Your task to perform on an android device: What is the recent news? Image 0: 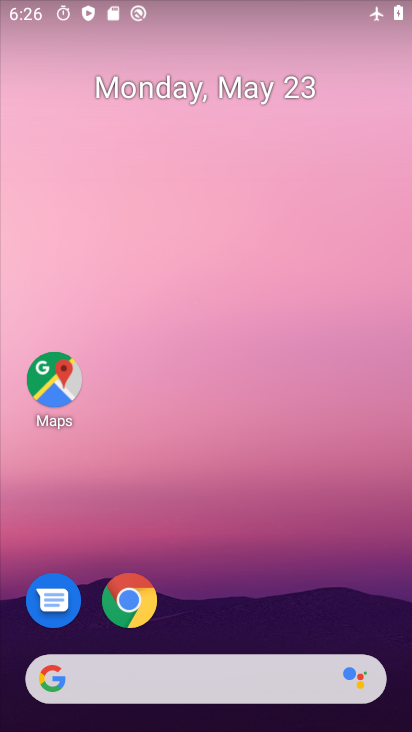
Step 0: drag from (200, 581) to (225, 31)
Your task to perform on an android device: What is the recent news? Image 1: 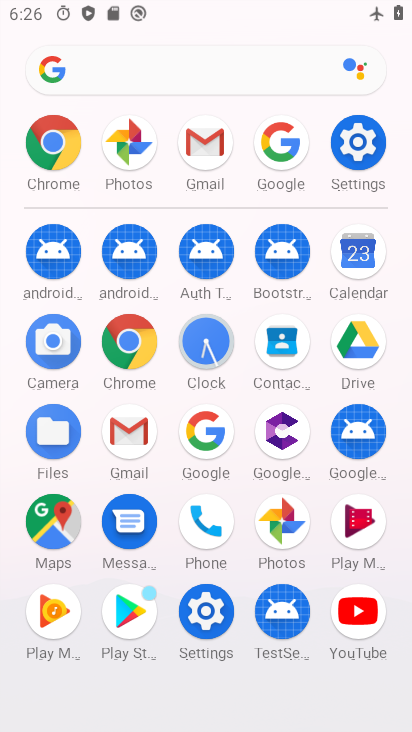
Step 1: click (205, 444)
Your task to perform on an android device: What is the recent news? Image 2: 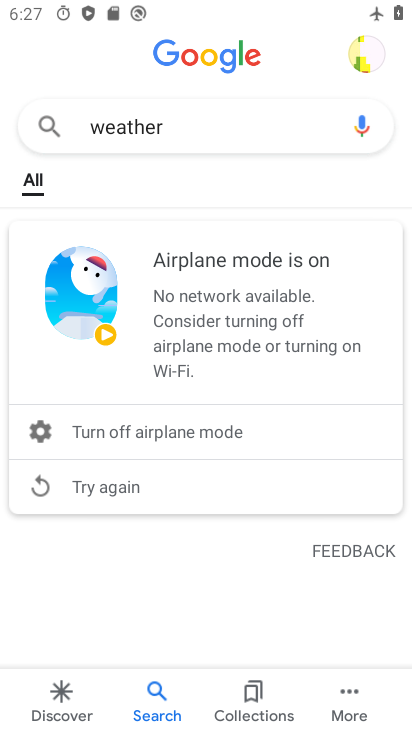
Step 2: click (77, 693)
Your task to perform on an android device: What is the recent news? Image 3: 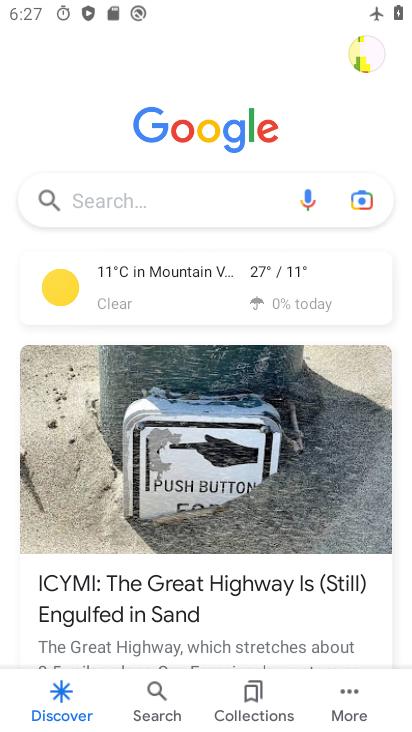
Step 3: task complete